Your task to perform on an android device: Go to Reddit.com Image 0: 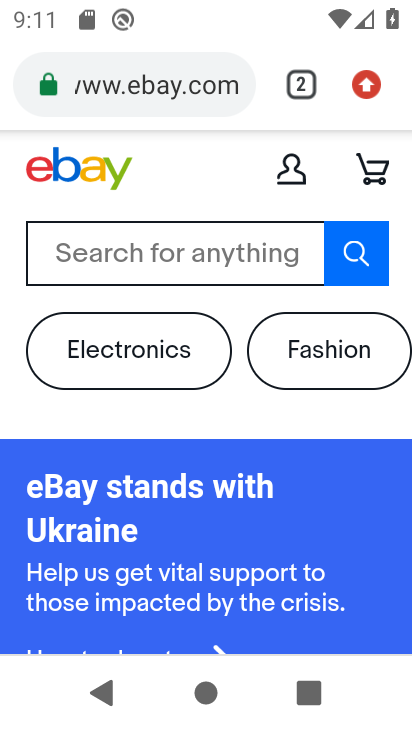
Step 0: press home button
Your task to perform on an android device: Go to Reddit.com Image 1: 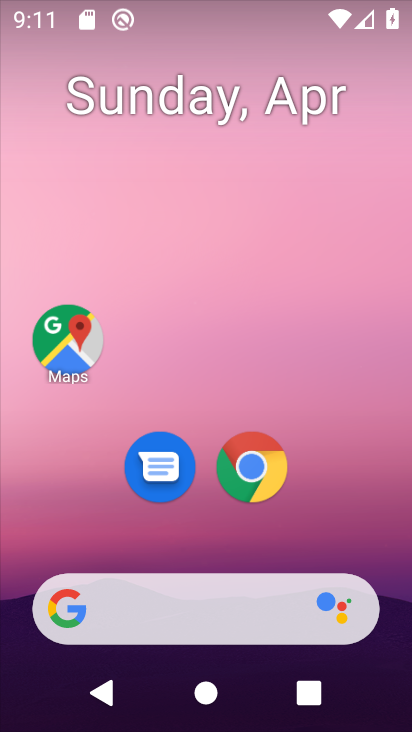
Step 1: click (255, 470)
Your task to perform on an android device: Go to Reddit.com Image 2: 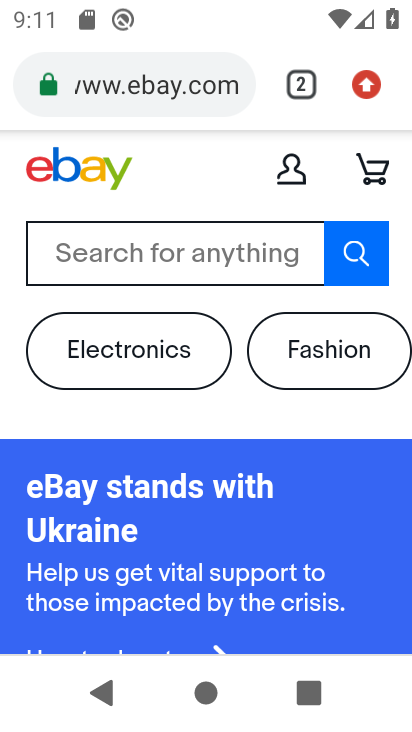
Step 2: click (173, 88)
Your task to perform on an android device: Go to Reddit.com Image 3: 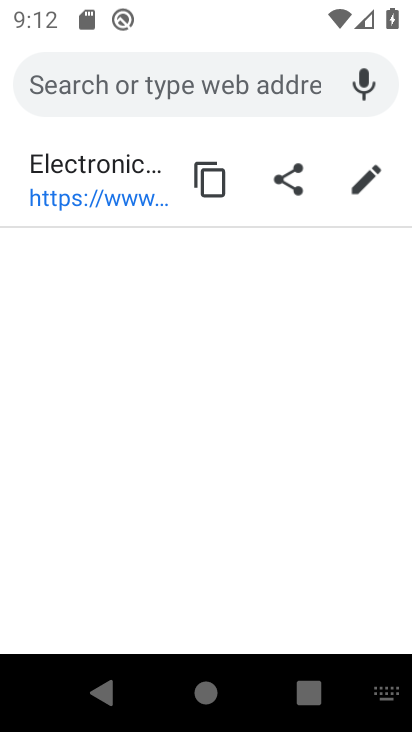
Step 3: type "reddit.com"
Your task to perform on an android device: Go to Reddit.com Image 4: 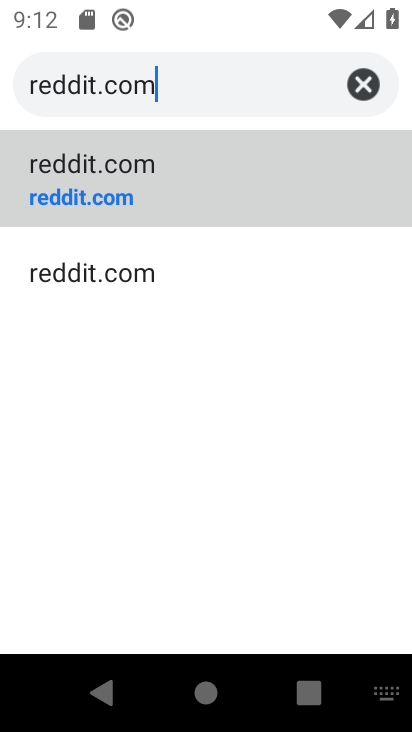
Step 4: click (58, 152)
Your task to perform on an android device: Go to Reddit.com Image 5: 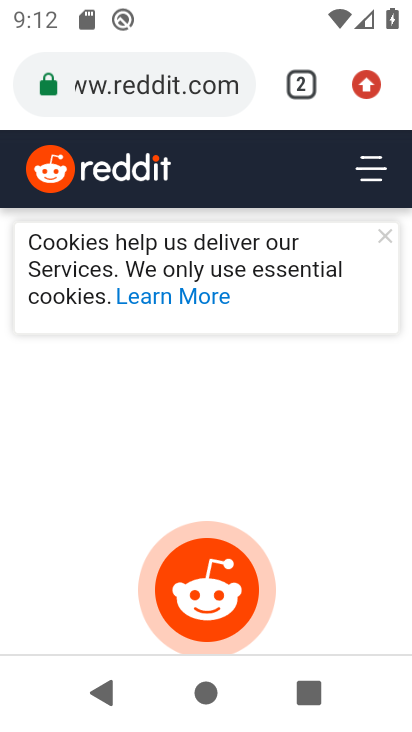
Step 5: task complete